Your task to perform on an android device: turn off picture-in-picture Image 0: 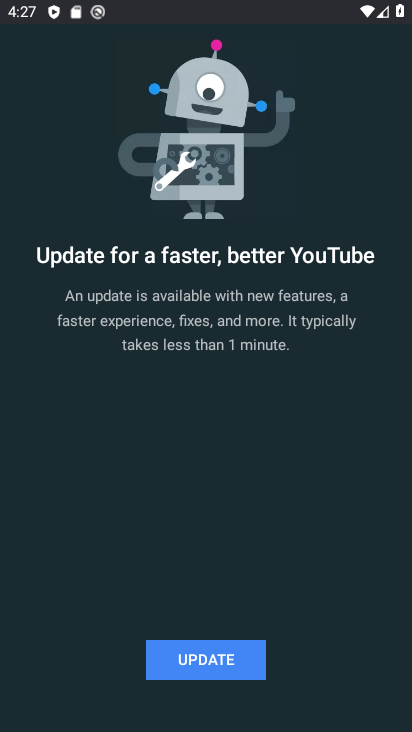
Step 0: press home button
Your task to perform on an android device: turn off picture-in-picture Image 1: 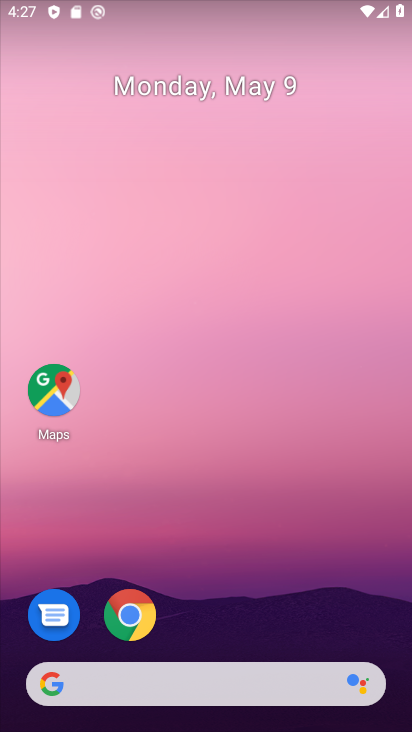
Step 1: drag from (135, 613) to (267, 613)
Your task to perform on an android device: turn off picture-in-picture Image 2: 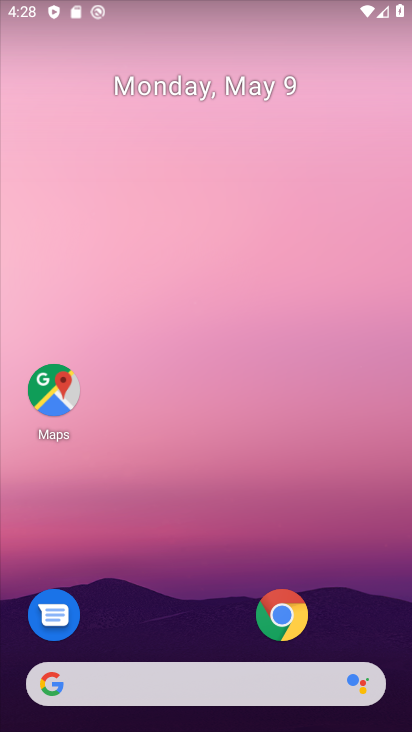
Step 2: click (280, 621)
Your task to perform on an android device: turn off picture-in-picture Image 3: 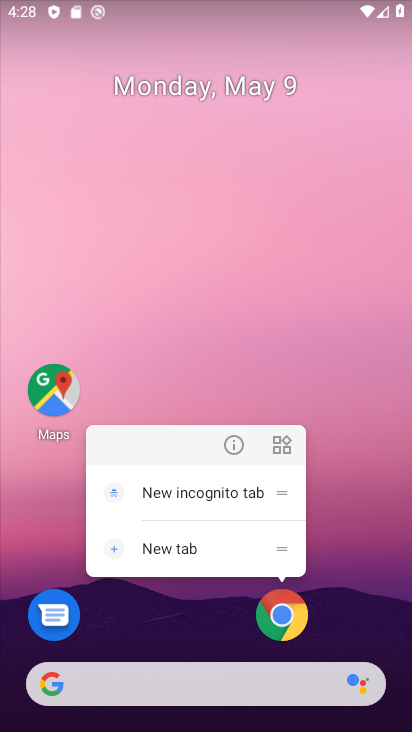
Step 3: click (242, 448)
Your task to perform on an android device: turn off picture-in-picture Image 4: 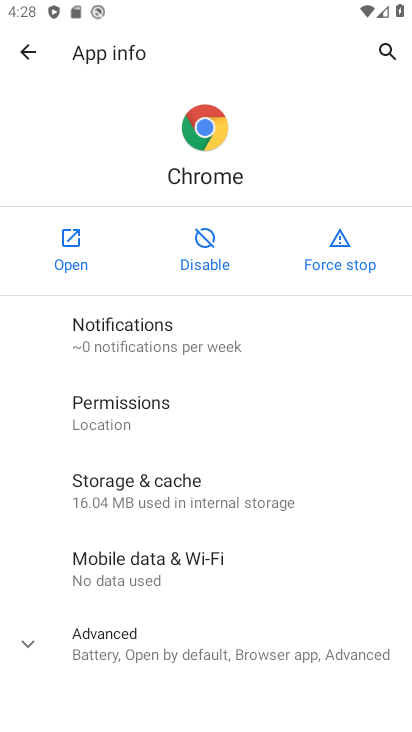
Step 4: click (166, 642)
Your task to perform on an android device: turn off picture-in-picture Image 5: 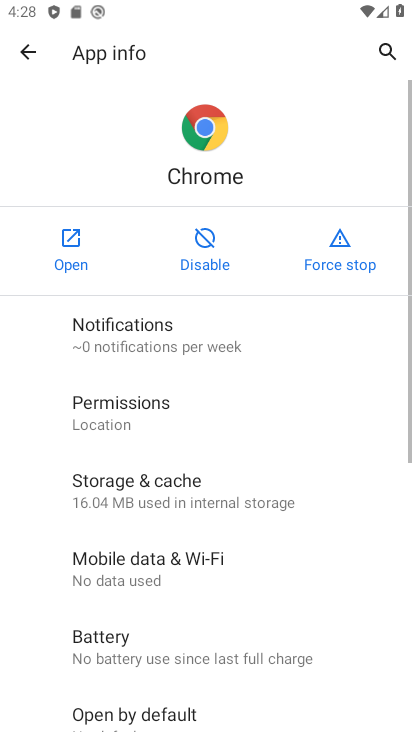
Step 5: click (118, 640)
Your task to perform on an android device: turn off picture-in-picture Image 6: 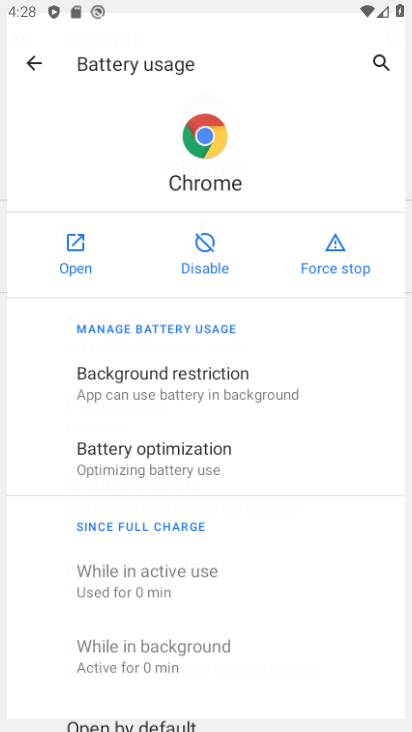
Step 6: drag from (156, 723) to (179, 347)
Your task to perform on an android device: turn off picture-in-picture Image 7: 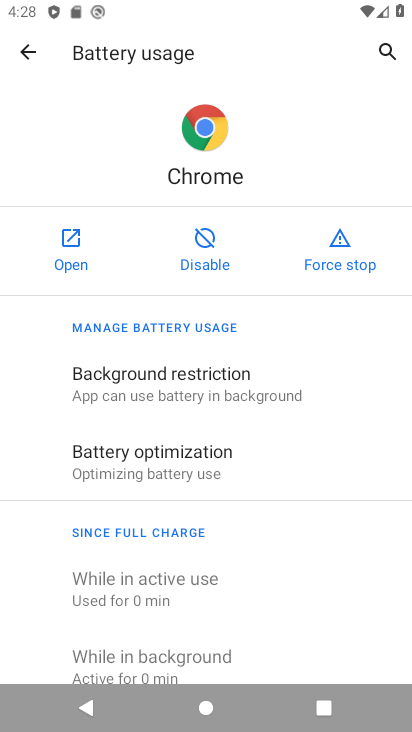
Step 7: drag from (205, 588) to (205, 324)
Your task to perform on an android device: turn off picture-in-picture Image 8: 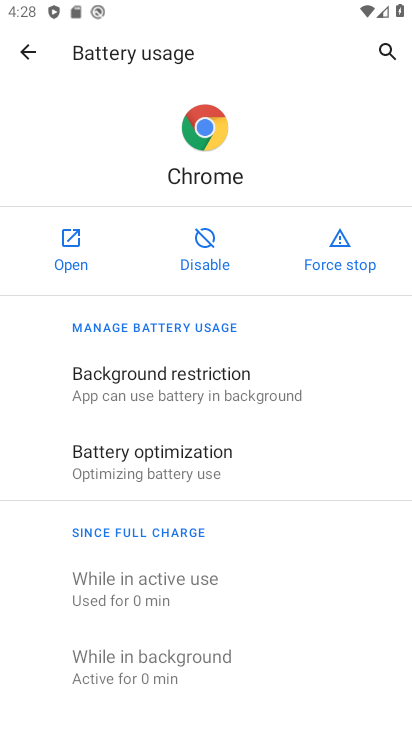
Step 8: drag from (200, 673) to (200, 339)
Your task to perform on an android device: turn off picture-in-picture Image 9: 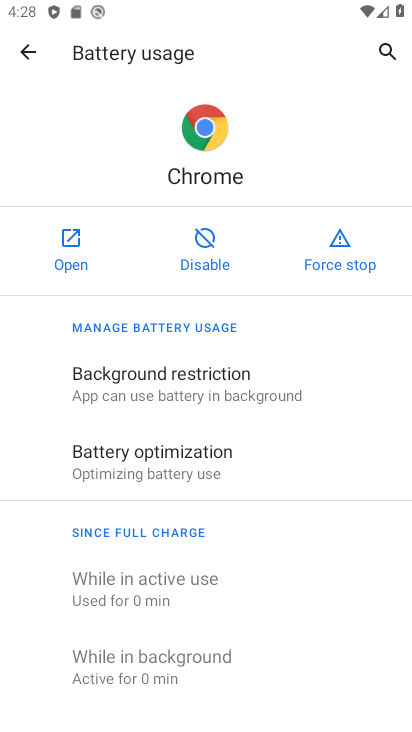
Step 9: drag from (192, 415) to (185, 705)
Your task to perform on an android device: turn off picture-in-picture Image 10: 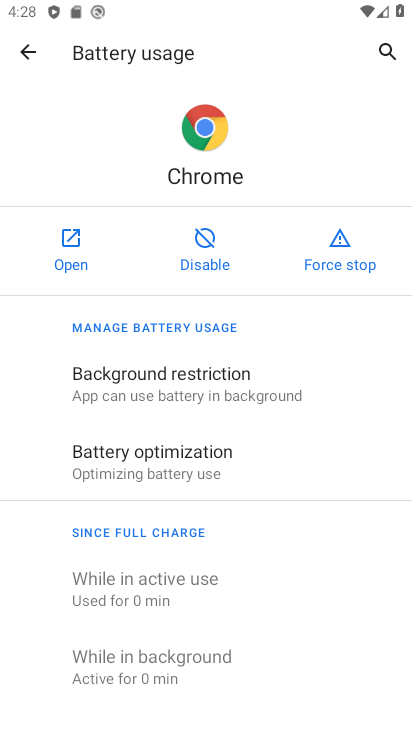
Step 10: drag from (159, 370) to (139, 598)
Your task to perform on an android device: turn off picture-in-picture Image 11: 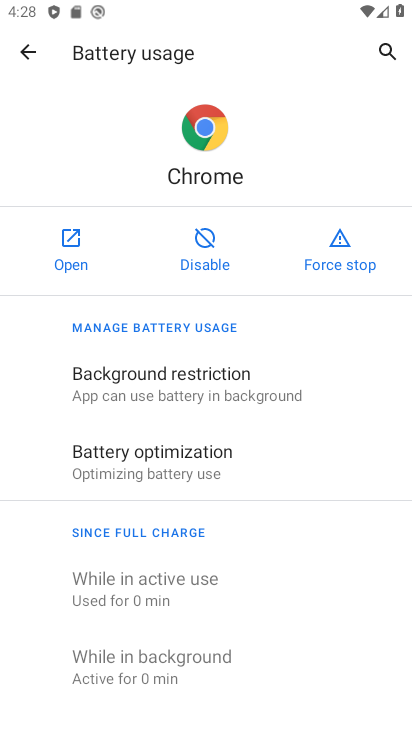
Step 11: click (28, 53)
Your task to perform on an android device: turn off picture-in-picture Image 12: 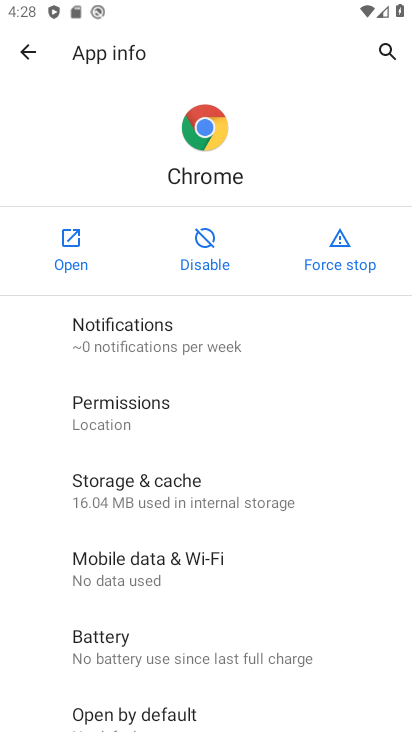
Step 12: drag from (150, 674) to (133, 357)
Your task to perform on an android device: turn off picture-in-picture Image 13: 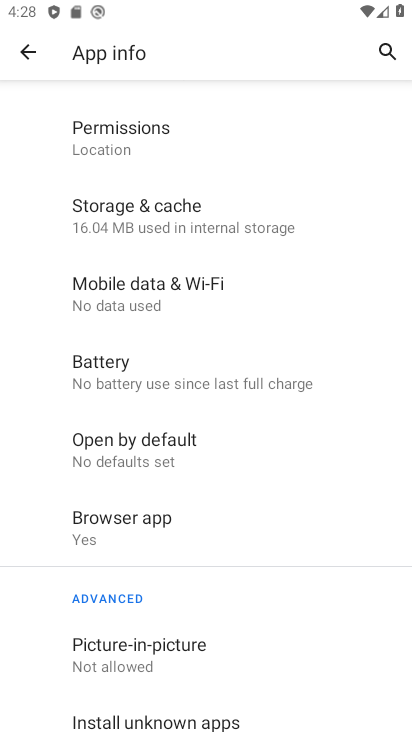
Step 13: click (143, 650)
Your task to perform on an android device: turn off picture-in-picture Image 14: 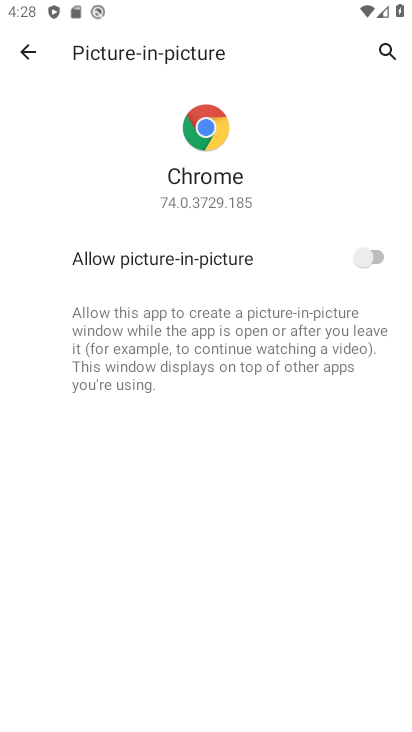
Step 14: task complete